Your task to perform on an android device: Open the calendar app, open the side menu, and click the "Day" option Image 0: 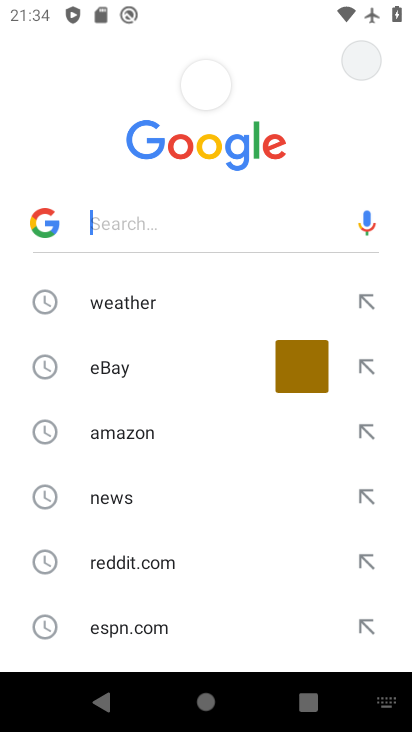
Step 0: press home button
Your task to perform on an android device: Open the calendar app, open the side menu, and click the "Day" option Image 1: 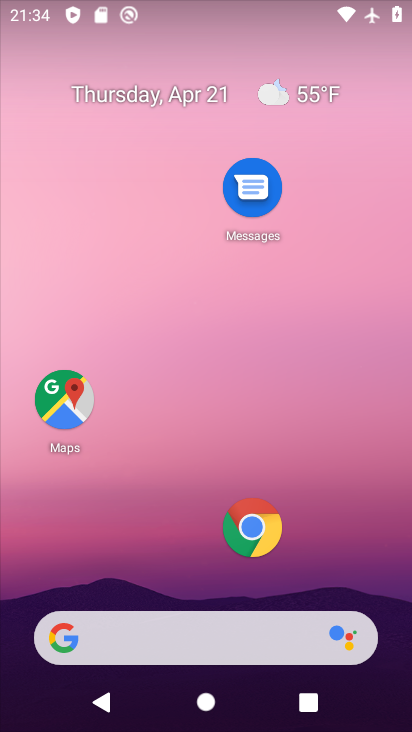
Step 1: drag from (166, 642) to (234, 125)
Your task to perform on an android device: Open the calendar app, open the side menu, and click the "Day" option Image 2: 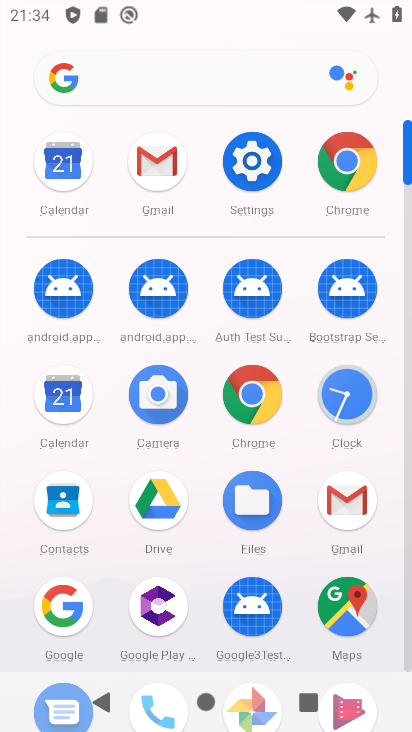
Step 2: click (66, 395)
Your task to perform on an android device: Open the calendar app, open the side menu, and click the "Day" option Image 3: 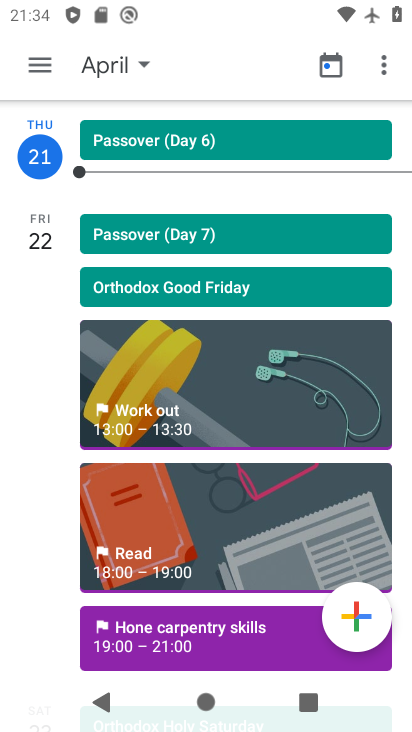
Step 3: click (101, 67)
Your task to perform on an android device: Open the calendar app, open the side menu, and click the "Day" option Image 4: 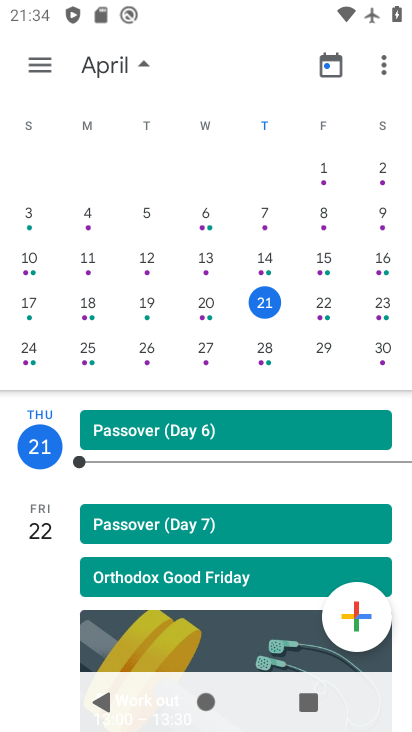
Step 4: click (44, 62)
Your task to perform on an android device: Open the calendar app, open the side menu, and click the "Day" option Image 5: 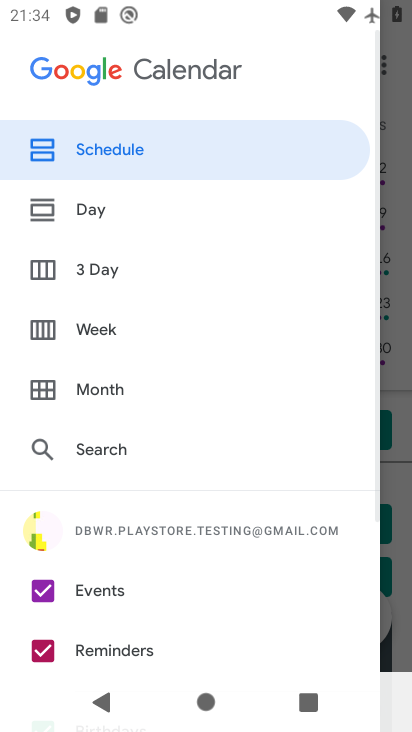
Step 5: click (95, 209)
Your task to perform on an android device: Open the calendar app, open the side menu, and click the "Day" option Image 6: 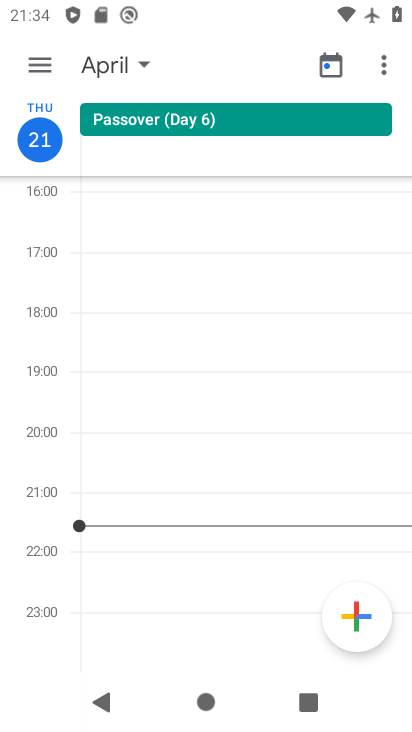
Step 6: task complete